Your task to perform on an android device: toggle javascript in the chrome app Image 0: 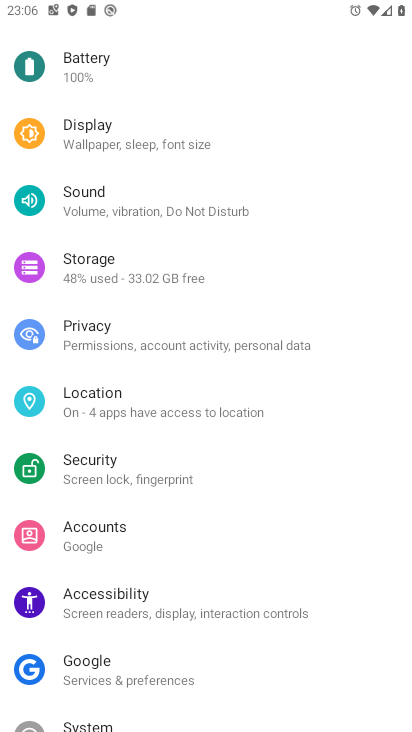
Step 0: press home button
Your task to perform on an android device: toggle javascript in the chrome app Image 1: 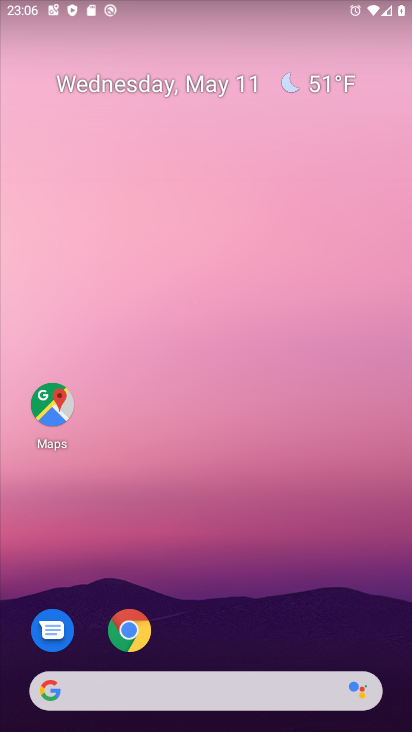
Step 1: click (126, 630)
Your task to perform on an android device: toggle javascript in the chrome app Image 2: 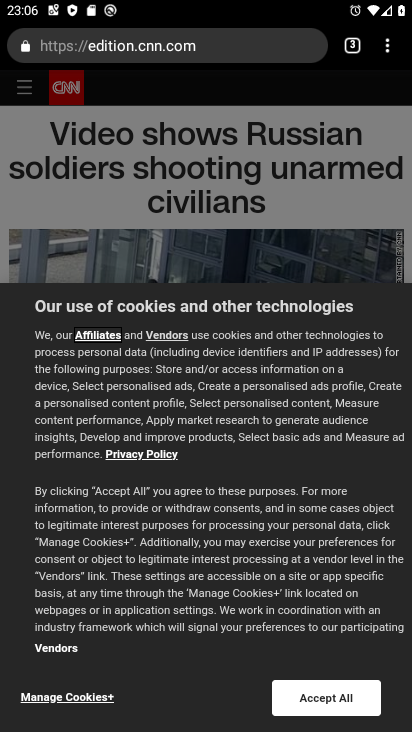
Step 2: click (386, 51)
Your task to perform on an android device: toggle javascript in the chrome app Image 3: 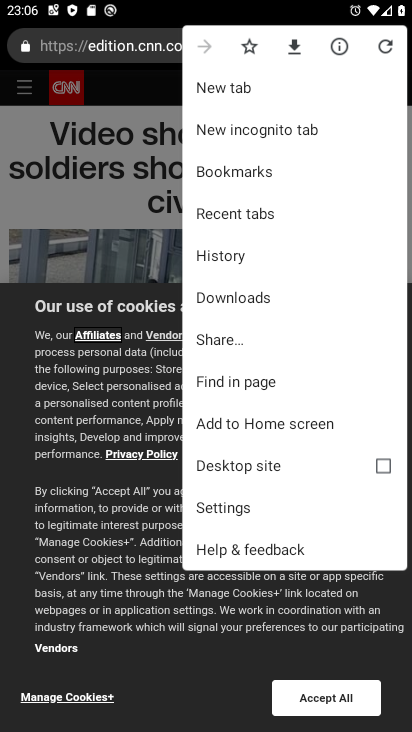
Step 3: click (233, 503)
Your task to perform on an android device: toggle javascript in the chrome app Image 4: 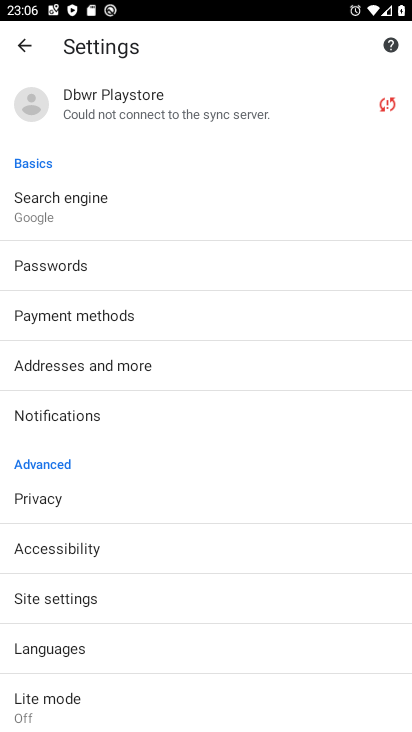
Step 4: click (128, 591)
Your task to perform on an android device: toggle javascript in the chrome app Image 5: 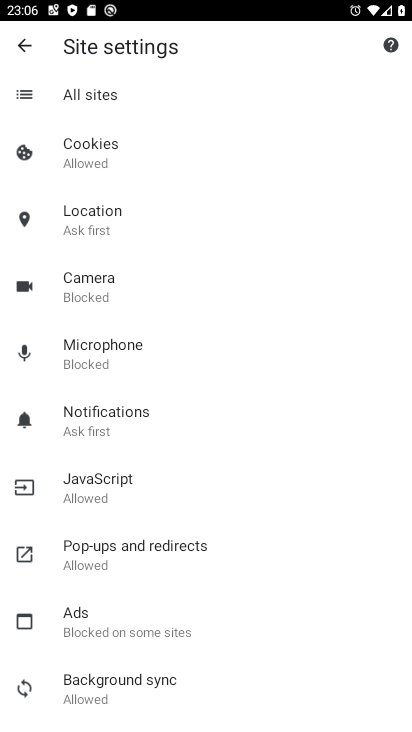
Step 5: click (106, 481)
Your task to perform on an android device: toggle javascript in the chrome app Image 6: 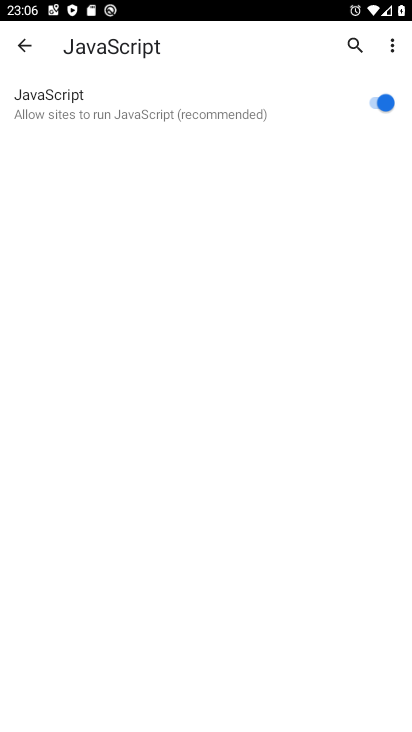
Step 6: click (371, 102)
Your task to perform on an android device: toggle javascript in the chrome app Image 7: 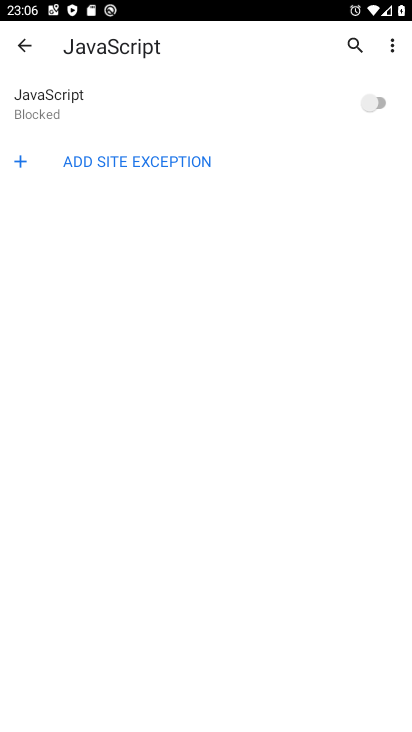
Step 7: task complete